Your task to perform on an android device: turn on javascript in the chrome app Image 0: 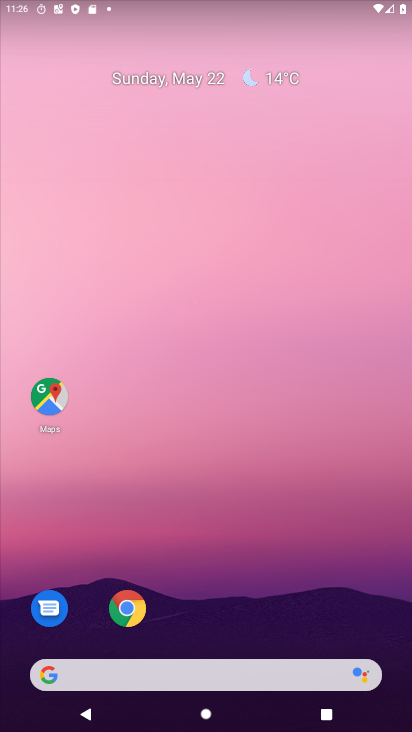
Step 0: press home button
Your task to perform on an android device: turn on javascript in the chrome app Image 1: 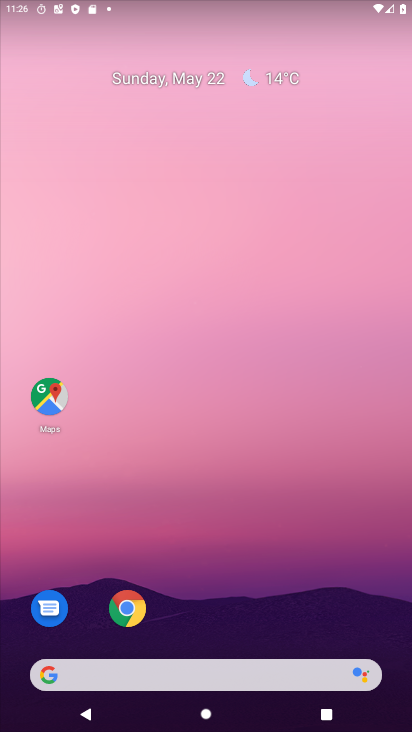
Step 1: click (131, 613)
Your task to perform on an android device: turn on javascript in the chrome app Image 2: 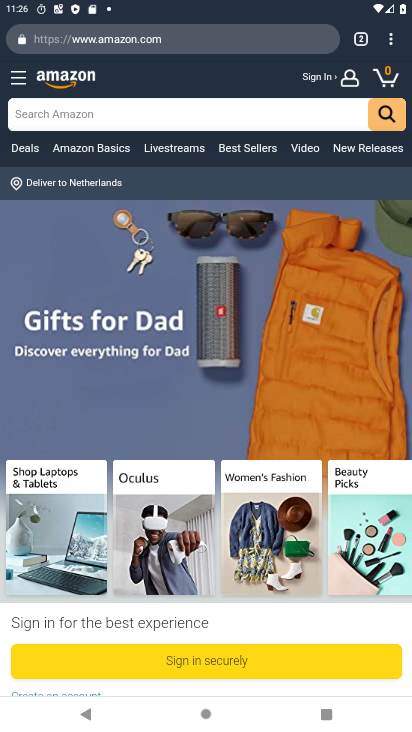
Step 2: click (394, 46)
Your task to perform on an android device: turn on javascript in the chrome app Image 3: 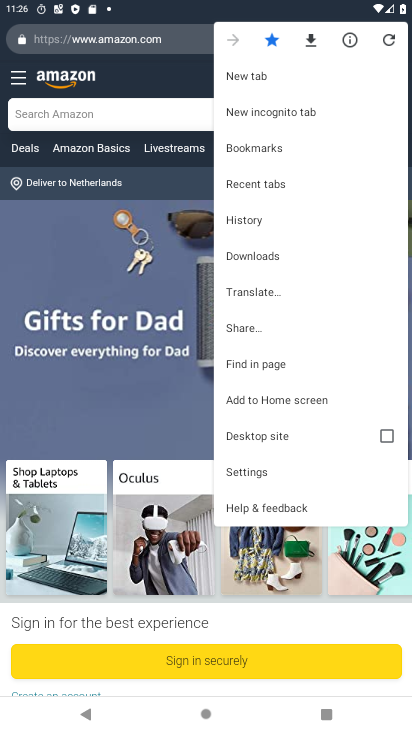
Step 3: click (253, 470)
Your task to perform on an android device: turn on javascript in the chrome app Image 4: 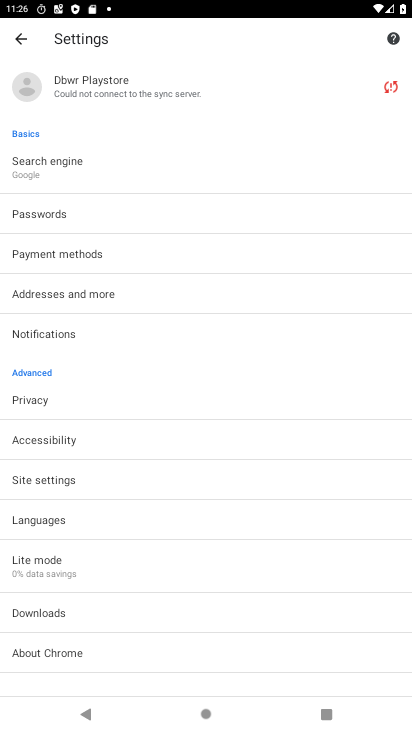
Step 4: click (35, 480)
Your task to perform on an android device: turn on javascript in the chrome app Image 5: 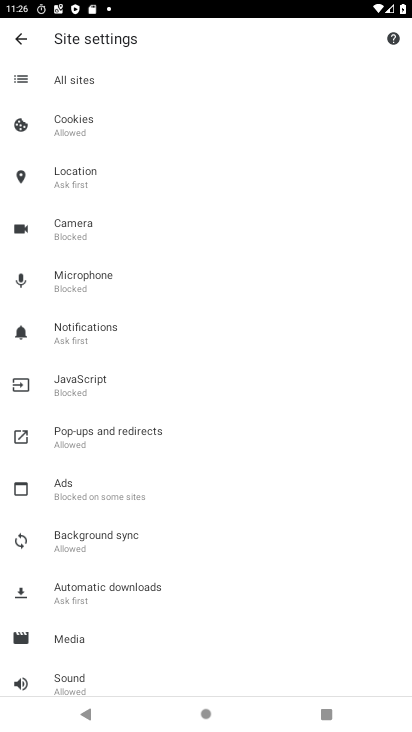
Step 5: click (78, 378)
Your task to perform on an android device: turn on javascript in the chrome app Image 6: 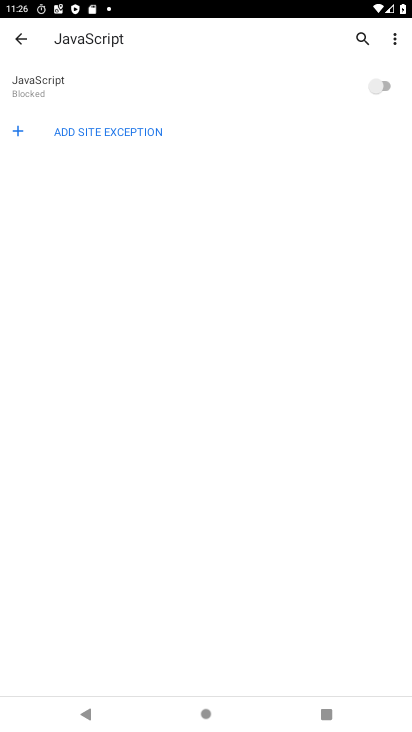
Step 6: click (384, 84)
Your task to perform on an android device: turn on javascript in the chrome app Image 7: 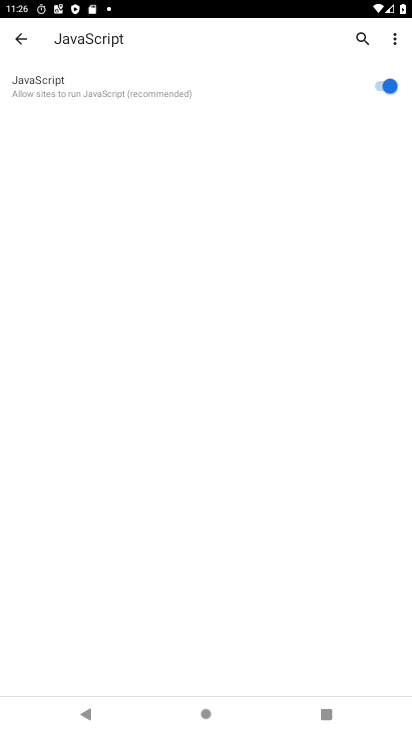
Step 7: task complete